Your task to perform on an android device: show emergency info Image 0: 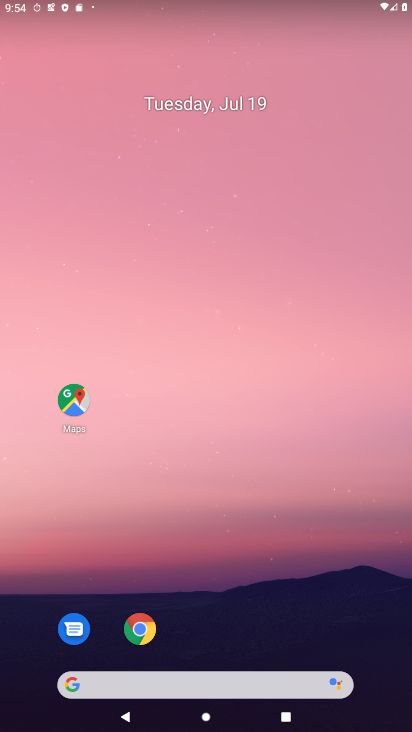
Step 0: drag from (244, 585) to (325, 8)
Your task to perform on an android device: show emergency info Image 1: 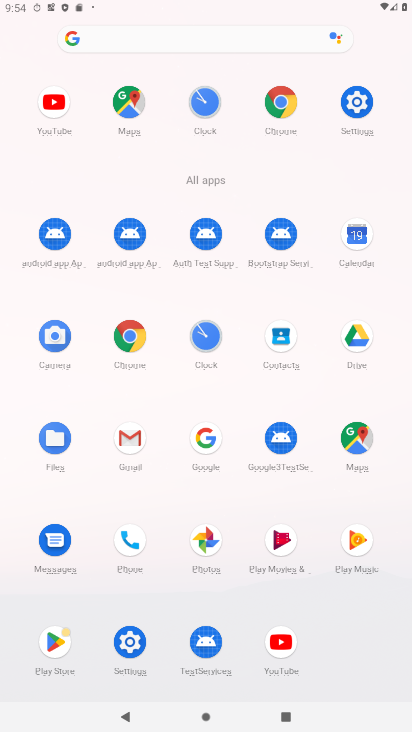
Step 1: click (132, 675)
Your task to perform on an android device: show emergency info Image 2: 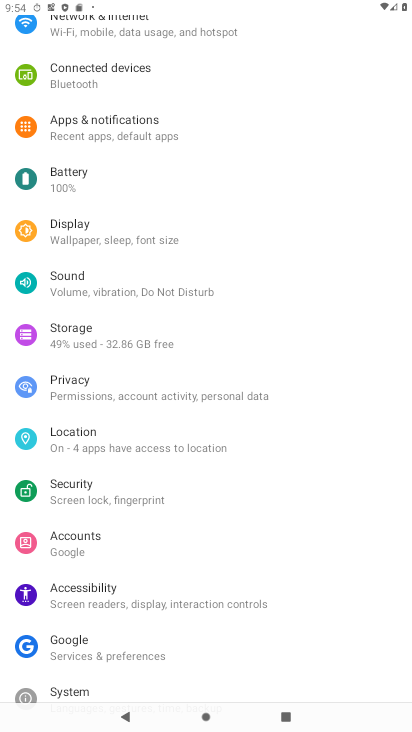
Step 2: drag from (111, 648) to (139, 106)
Your task to perform on an android device: show emergency info Image 3: 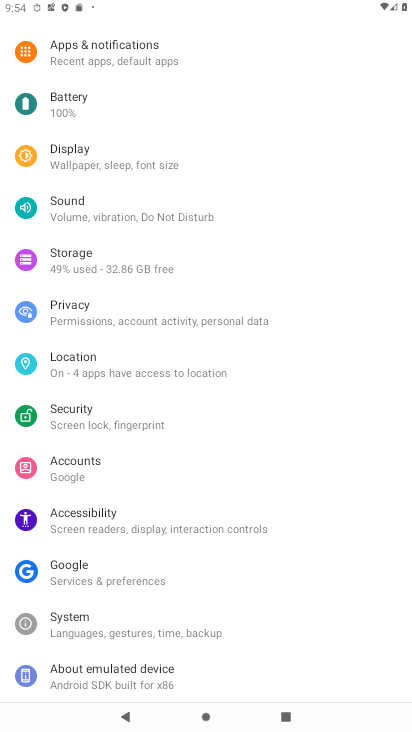
Step 3: click (107, 673)
Your task to perform on an android device: show emergency info Image 4: 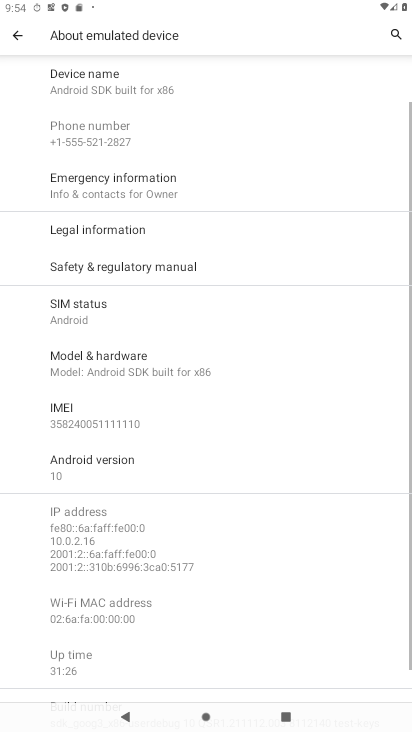
Step 4: click (130, 185)
Your task to perform on an android device: show emergency info Image 5: 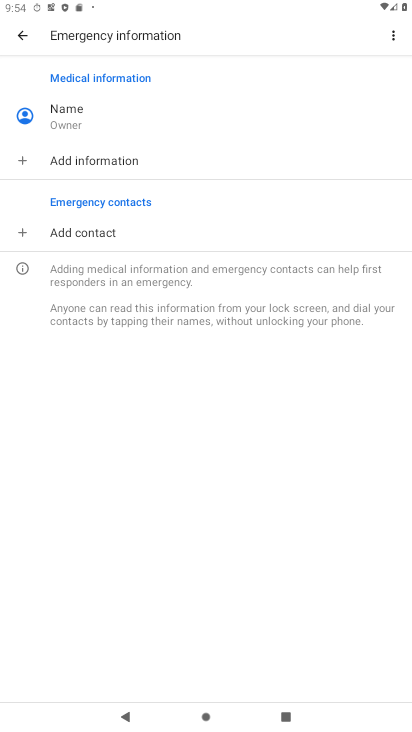
Step 5: task complete